Your task to perform on an android device: Go to privacy settings Image 0: 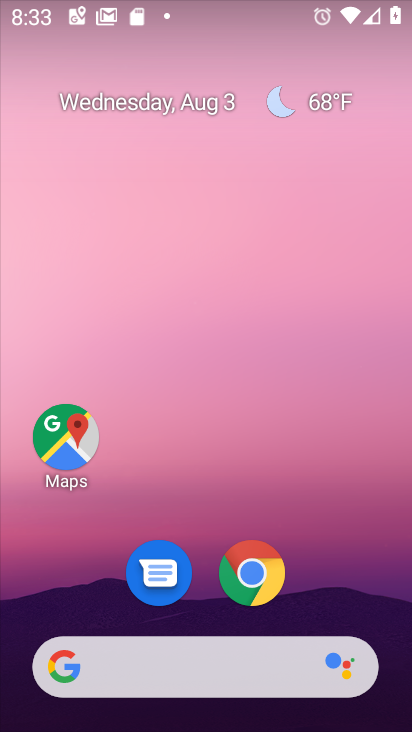
Step 0: drag from (326, 619) to (313, 34)
Your task to perform on an android device: Go to privacy settings Image 1: 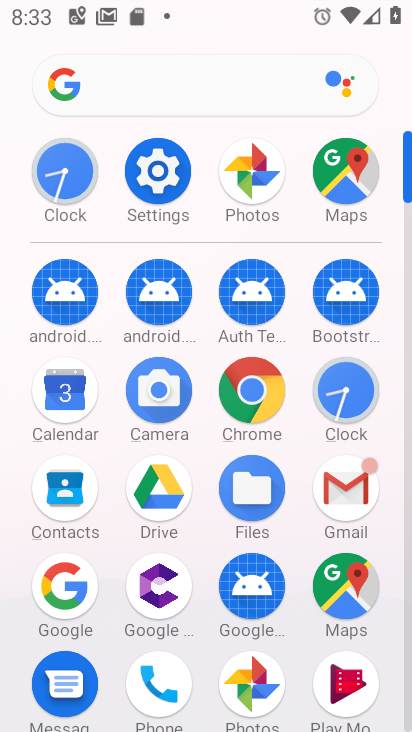
Step 1: click (156, 173)
Your task to perform on an android device: Go to privacy settings Image 2: 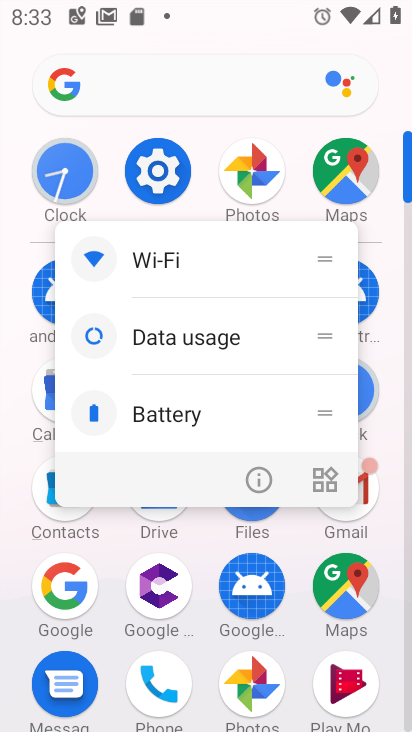
Step 2: click (156, 173)
Your task to perform on an android device: Go to privacy settings Image 3: 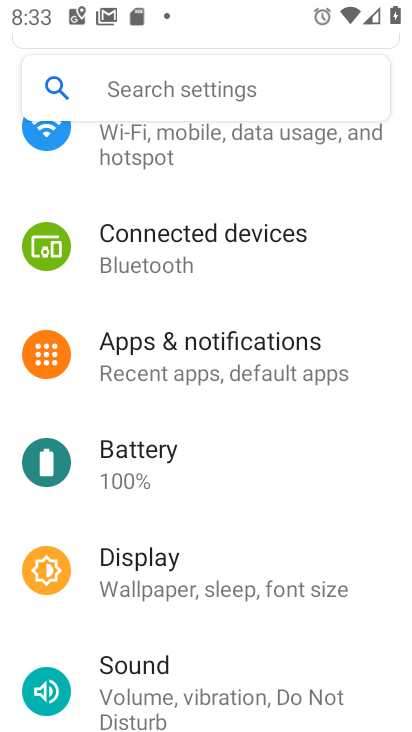
Step 3: drag from (377, 570) to (363, 257)
Your task to perform on an android device: Go to privacy settings Image 4: 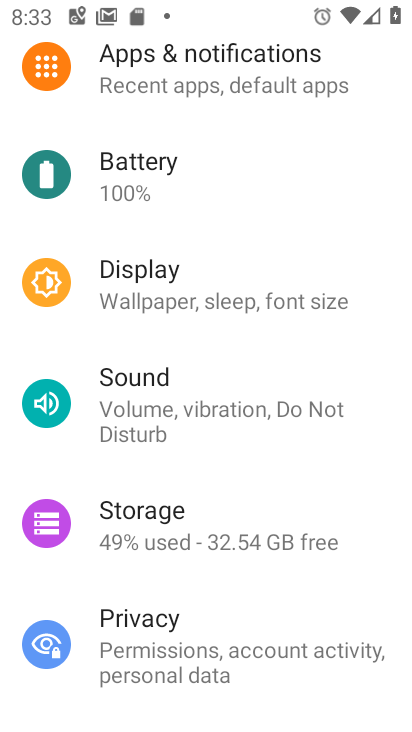
Step 4: click (117, 639)
Your task to perform on an android device: Go to privacy settings Image 5: 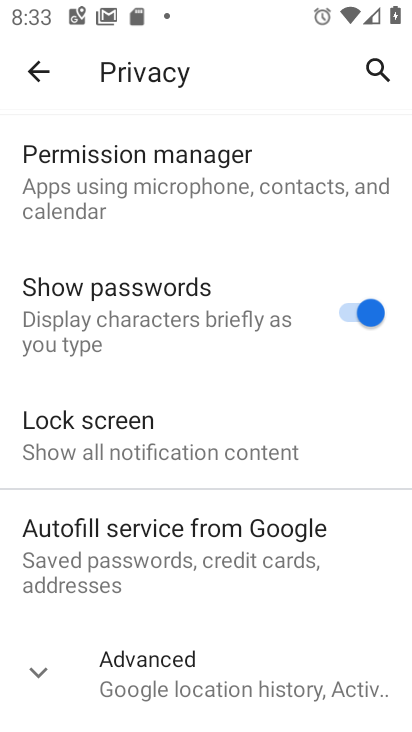
Step 5: task complete